Your task to perform on an android device: change your default location settings in chrome Image 0: 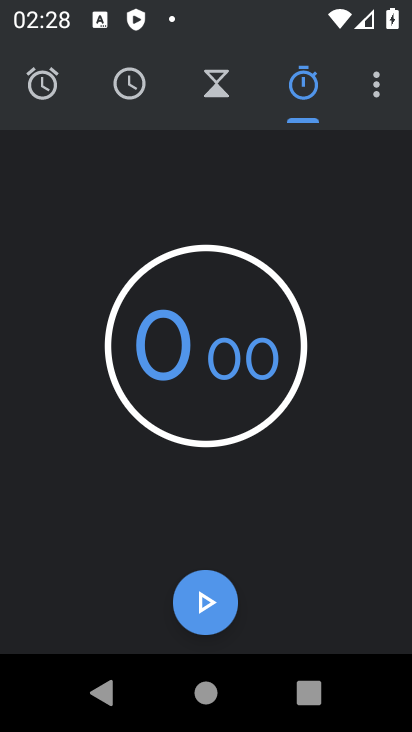
Step 0: press home button
Your task to perform on an android device: change your default location settings in chrome Image 1: 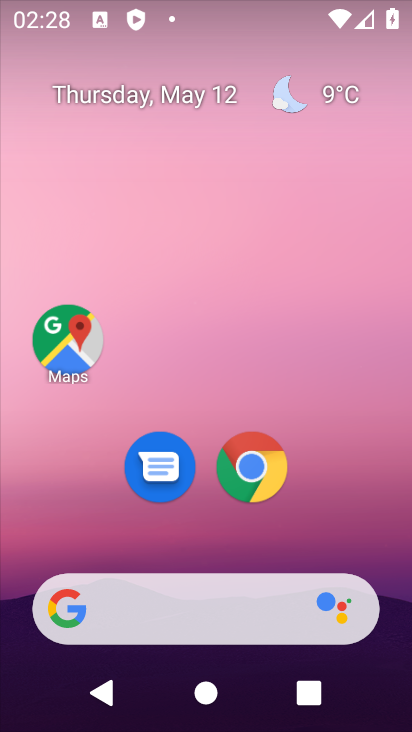
Step 1: drag from (322, 489) to (322, 198)
Your task to perform on an android device: change your default location settings in chrome Image 2: 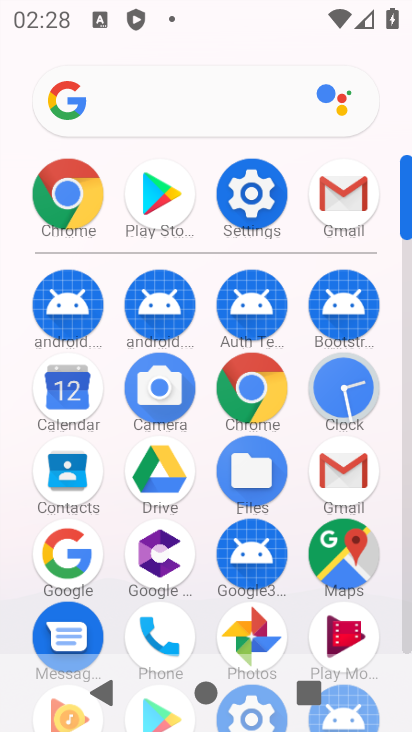
Step 2: click (87, 179)
Your task to perform on an android device: change your default location settings in chrome Image 3: 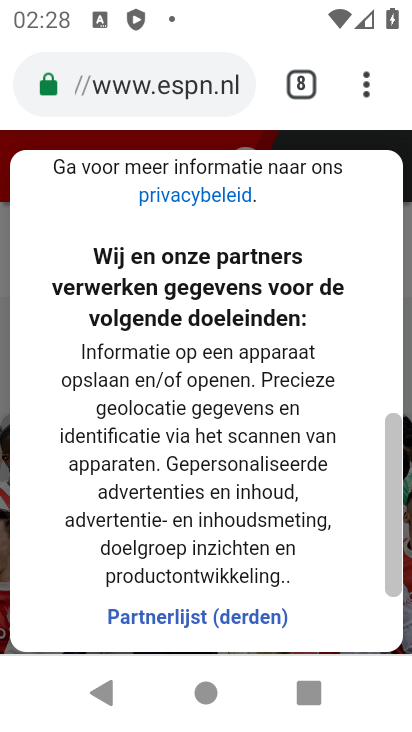
Step 3: click (347, 88)
Your task to perform on an android device: change your default location settings in chrome Image 4: 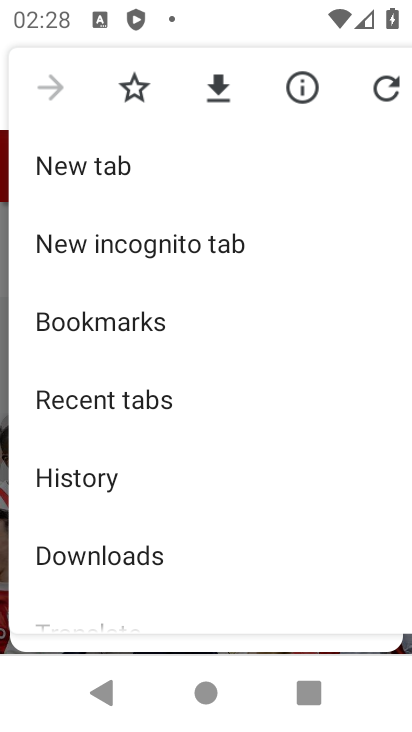
Step 4: drag from (204, 548) to (255, 159)
Your task to perform on an android device: change your default location settings in chrome Image 5: 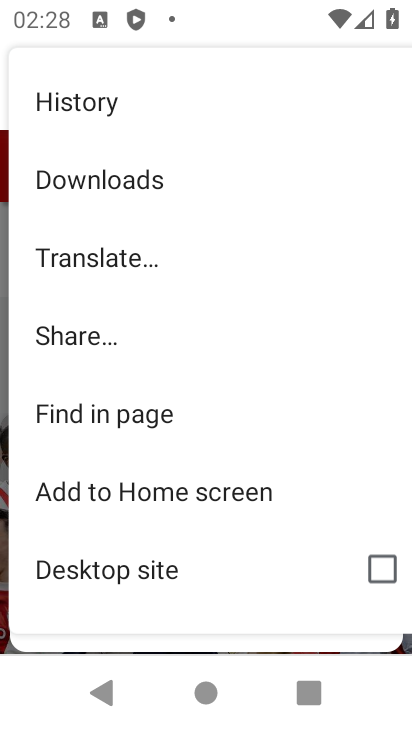
Step 5: drag from (204, 539) to (295, 184)
Your task to perform on an android device: change your default location settings in chrome Image 6: 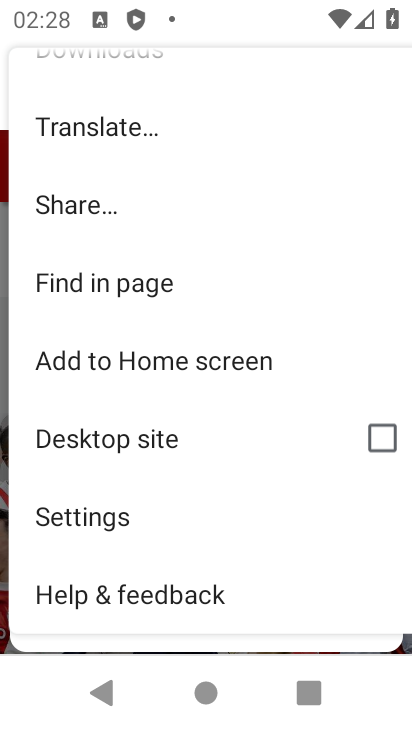
Step 6: click (69, 514)
Your task to perform on an android device: change your default location settings in chrome Image 7: 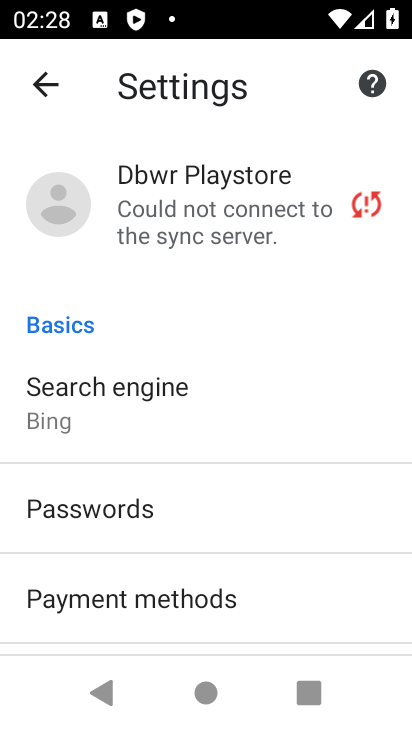
Step 7: drag from (174, 575) to (266, 242)
Your task to perform on an android device: change your default location settings in chrome Image 8: 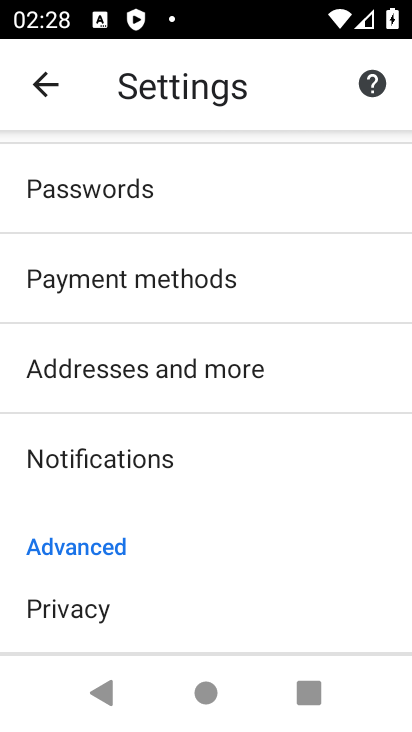
Step 8: drag from (371, 403) to (341, 184)
Your task to perform on an android device: change your default location settings in chrome Image 9: 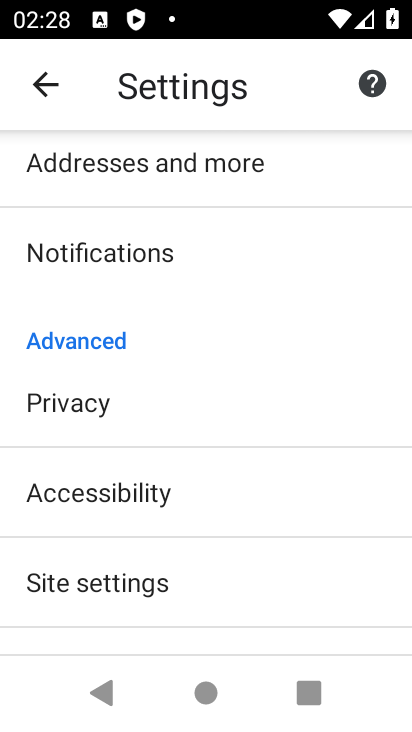
Step 9: drag from (171, 566) to (279, 185)
Your task to perform on an android device: change your default location settings in chrome Image 10: 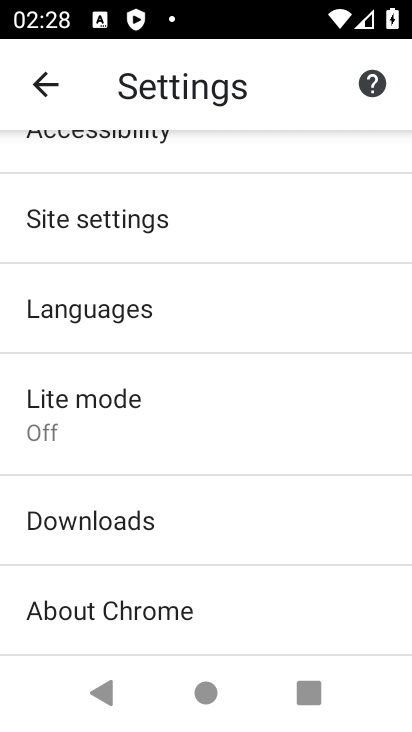
Step 10: drag from (202, 478) to (327, 154)
Your task to perform on an android device: change your default location settings in chrome Image 11: 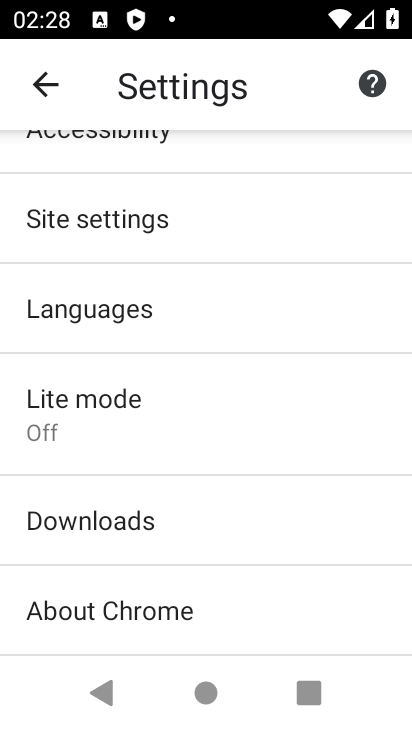
Step 11: drag from (264, 239) to (278, 555)
Your task to perform on an android device: change your default location settings in chrome Image 12: 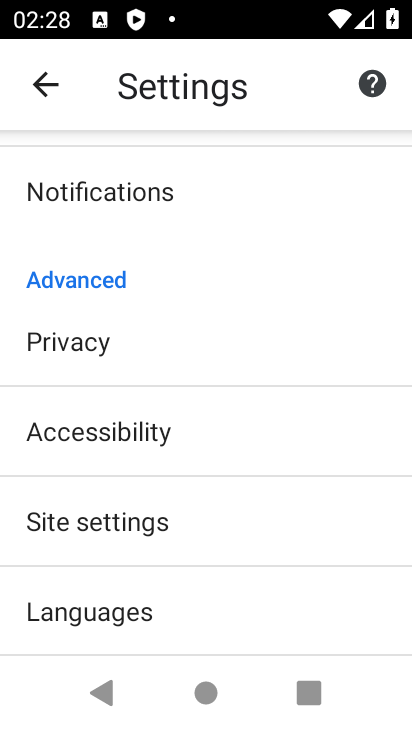
Step 12: click (161, 563)
Your task to perform on an android device: change your default location settings in chrome Image 13: 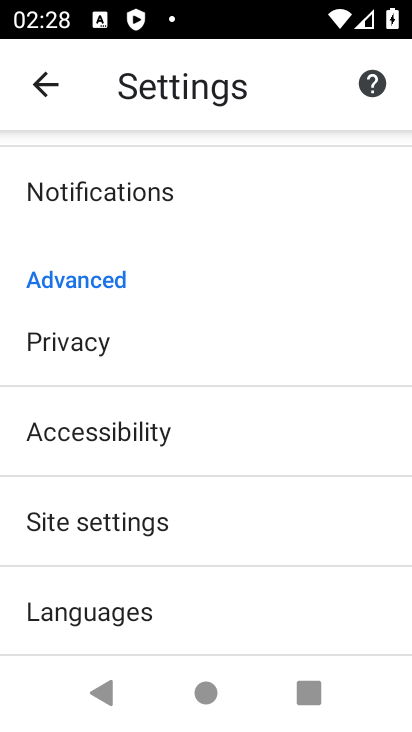
Step 13: click (169, 515)
Your task to perform on an android device: change your default location settings in chrome Image 14: 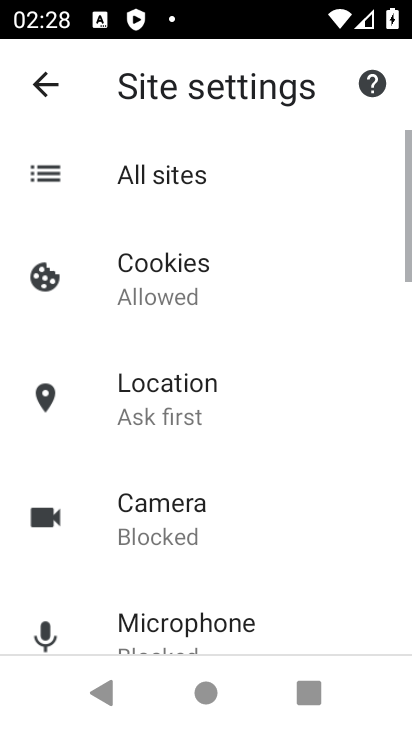
Step 14: click (169, 386)
Your task to perform on an android device: change your default location settings in chrome Image 15: 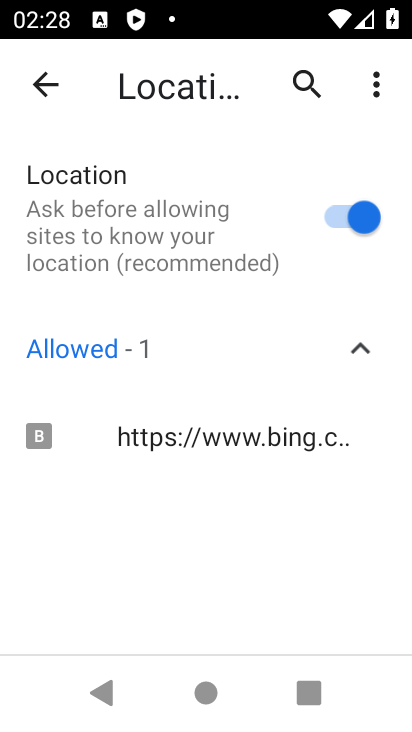
Step 15: click (340, 213)
Your task to perform on an android device: change your default location settings in chrome Image 16: 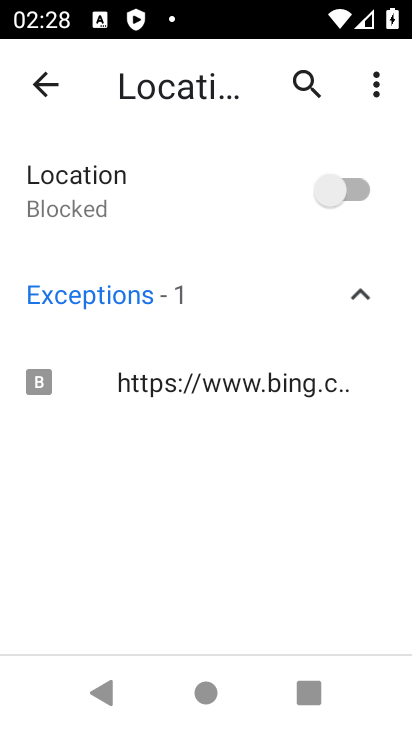
Step 16: task complete